Your task to perform on an android device: Go to Google Image 0: 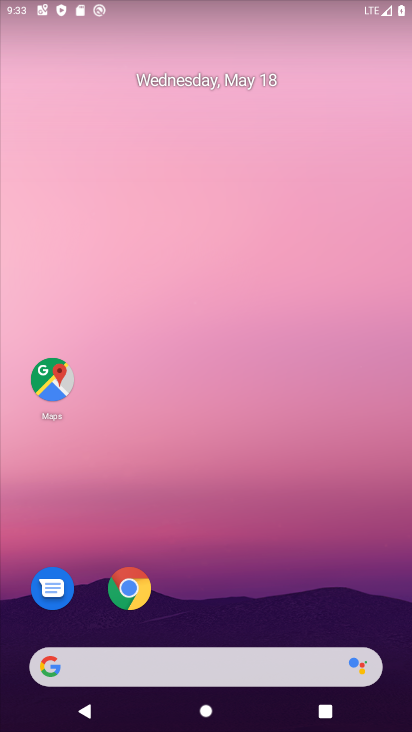
Step 0: drag from (318, 617) to (277, 10)
Your task to perform on an android device: Go to Google Image 1: 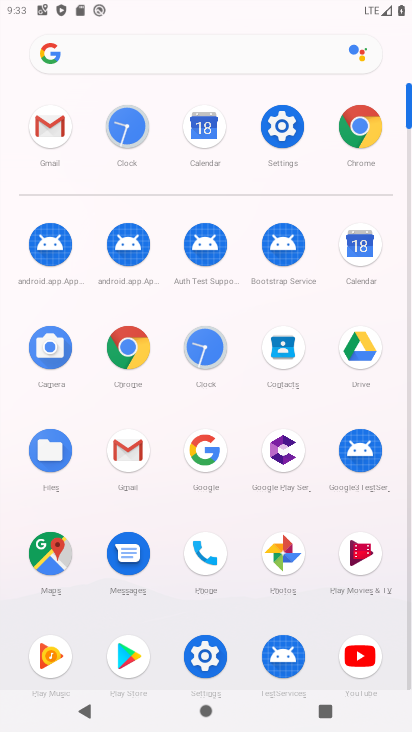
Step 1: click (204, 457)
Your task to perform on an android device: Go to Google Image 2: 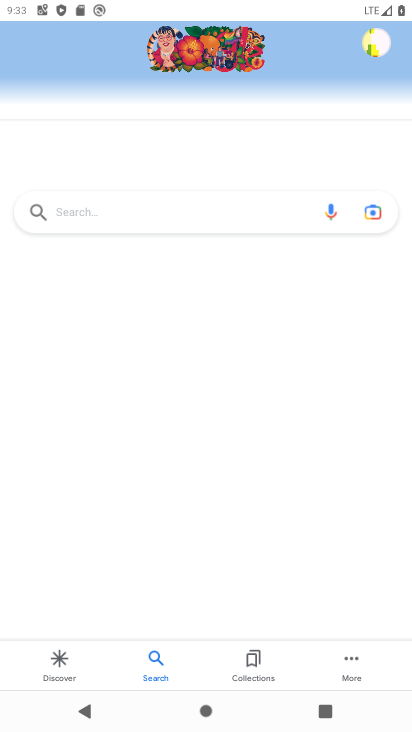
Step 2: task complete